Your task to perform on an android device: read, delete, or share a saved page in the chrome app Image 0: 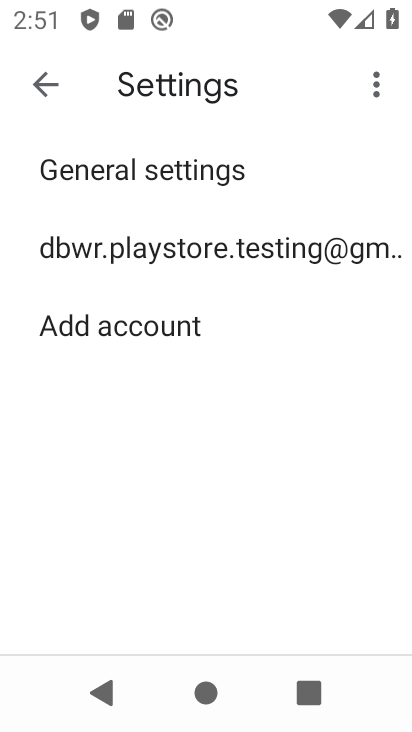
Step 0: click (34, 72)
Your task to perform on an android device: read, delete, or share a saved page in the chrome app Image 1: 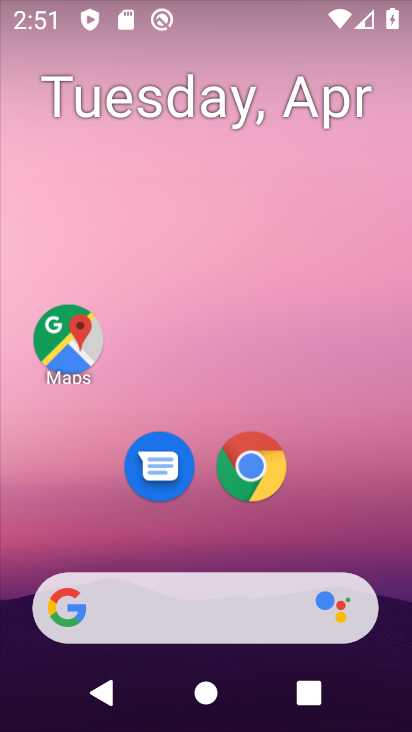
Step 1: click (235, 448)
Your task to perform on an android device: read, delete, or share a saved page in the chrome app Image 2: 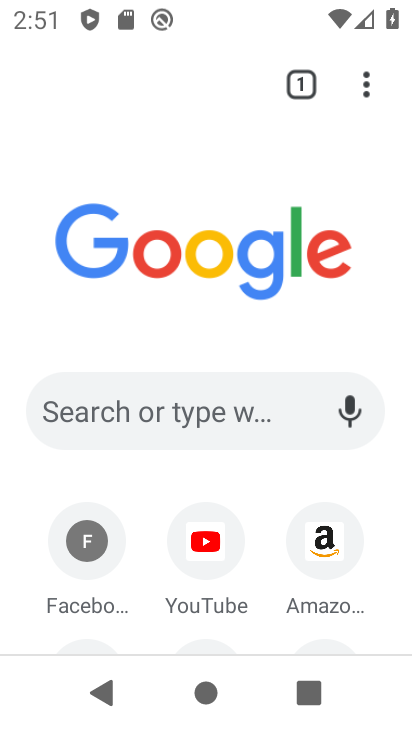
Step 2: click (349, 82)
Your task to perform on an android device: read, delete, or share a saved page in the chrome app Image 3: 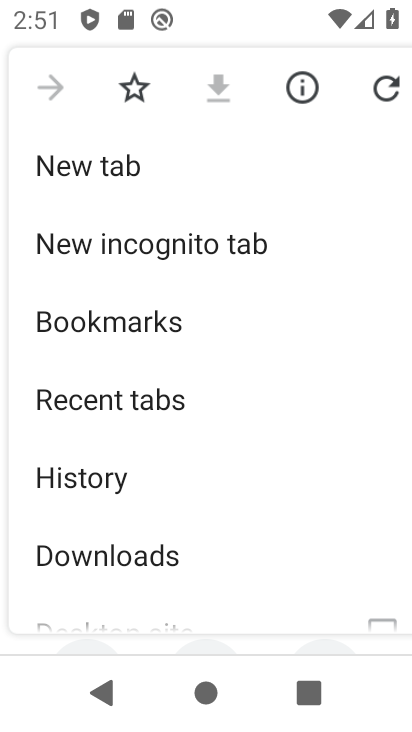
Step 3: click (102, 532)
Your task to perform on an android device: read, delete, or share a saved page in the chrome app Image 4: 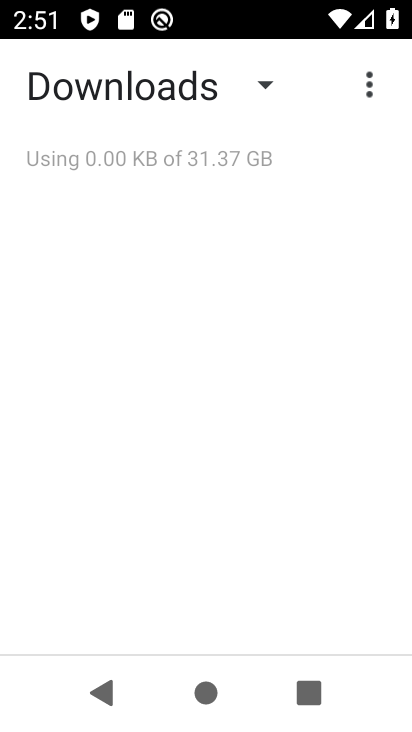
Step 4: task complete